Your task to perform on an android device: Open Reddit.com Image 0: 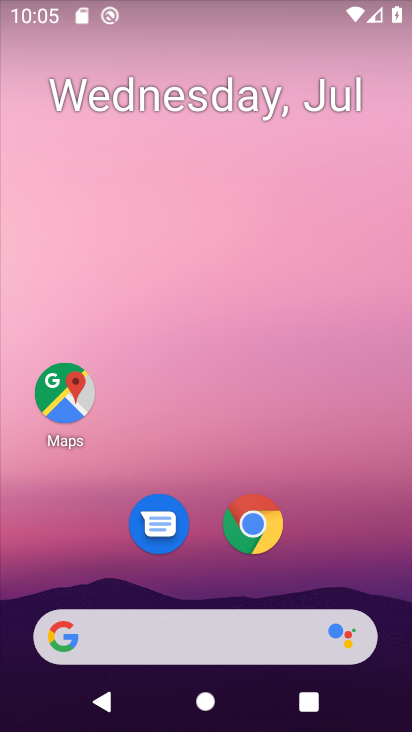
Step 0: drag from (340, 544) to (317, 137)
Your task to perform on an android device: Open Reddit.com Image 1: 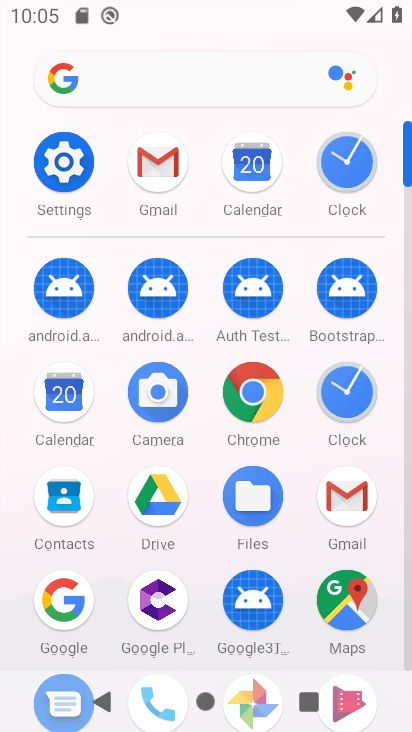
Step 1: click (244, 90)
Your task to perform on an android device: Open Reddit.com Image 2: 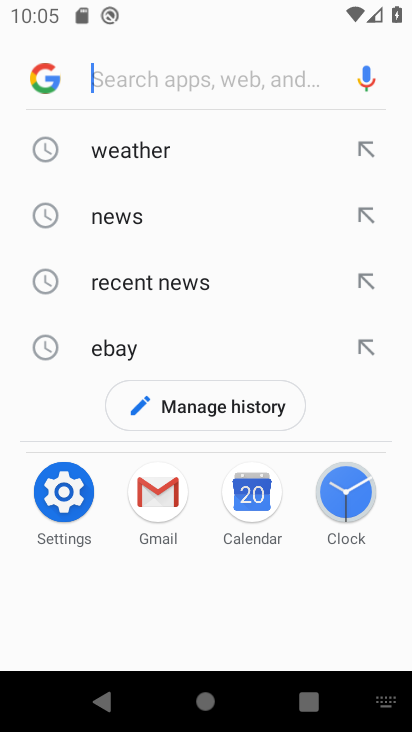
Step 2: type "reddit.com"
Your task to perform on an android device: Open Reddit.com Image 3: 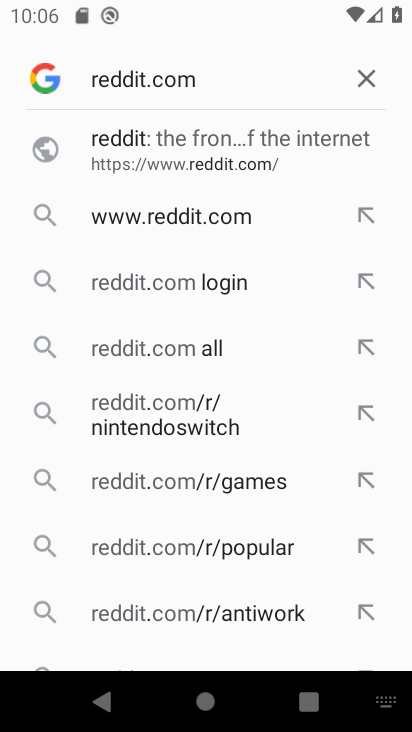
Step 3: click (186, 144)
Your task to perform on an android device: Open Reddit.com Image 4: 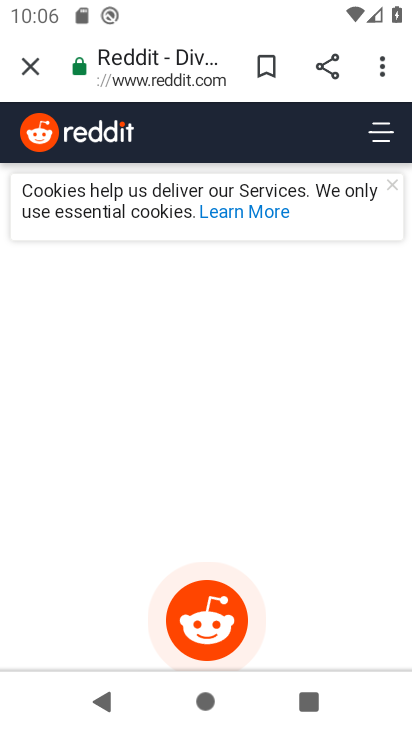
Step 4: task complete